Your task to perform on an android device: turn off location Image 0: 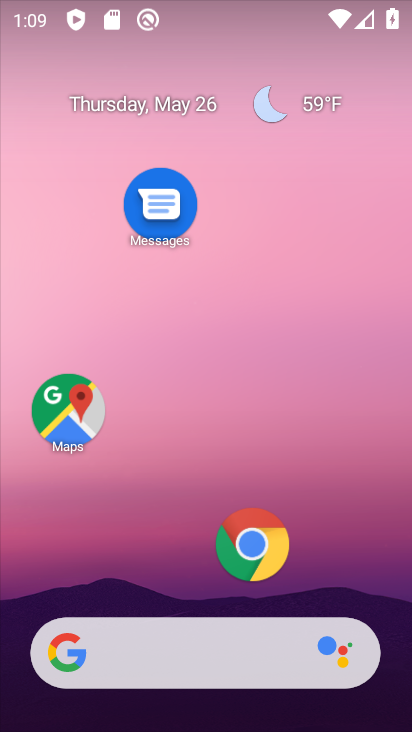
Step 0: drag from (158, 571) to (165, 105)
Your task to perform on an android device: turn off location Image 1: 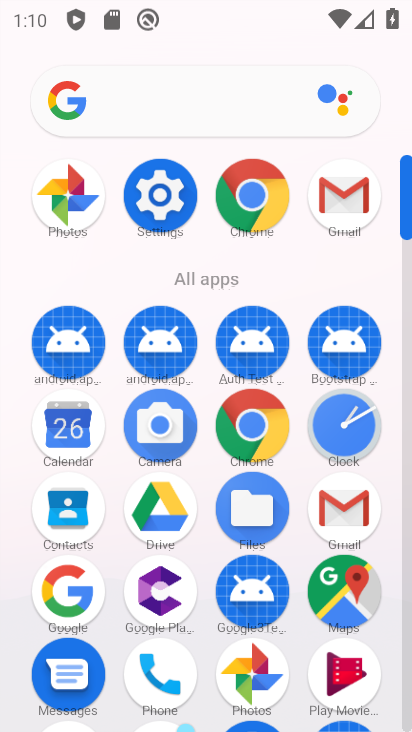
Step 1: click (148, 167)
Your task to perform on an android device: turn off location Image 2: 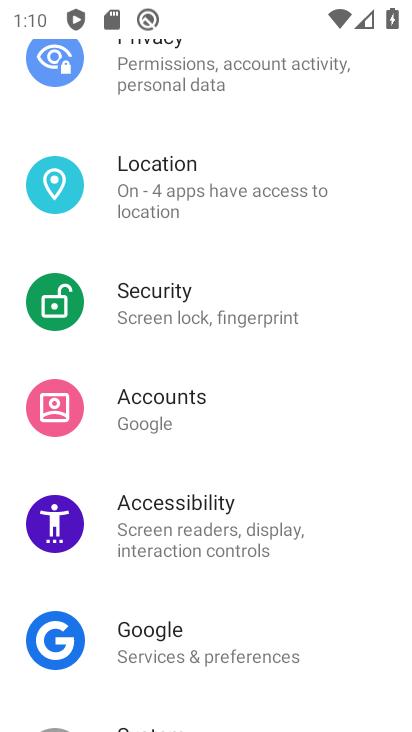
Step 2: click (148, 167)
Your task to perform on an android device: turn off location Image 3: 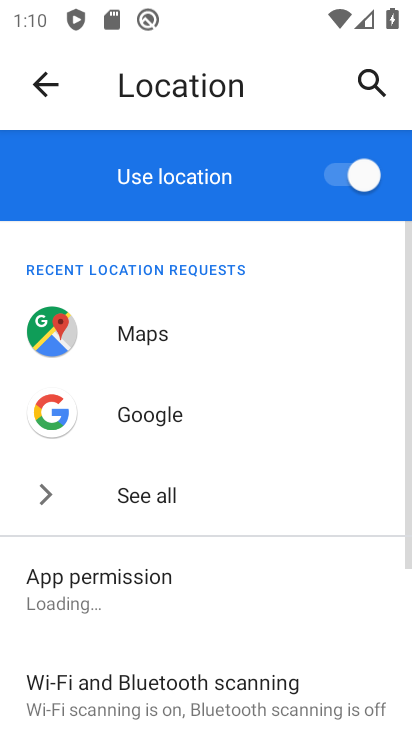
Step 3: click (334, 174)
Your task to perform on an android device: turn off location Image 4: 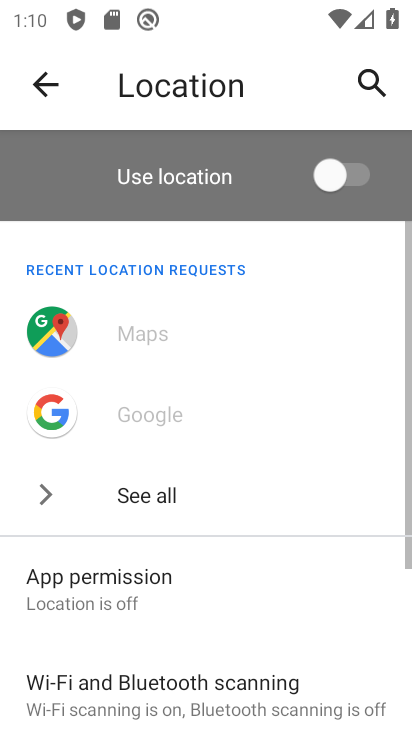
Step 4: task complete